Your task to perform on an android device: Find coffee shops on Maps Image 0: 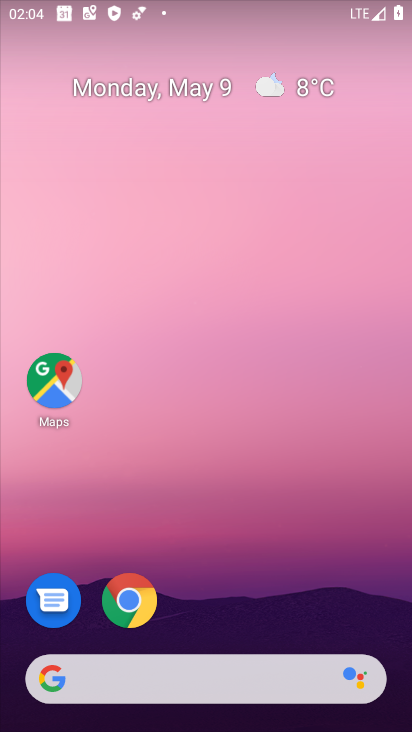
Step 0: drag from (238, 613) to (258, 197)
Your task to perform on an android device: Find coffee shops on Maps Image 1: 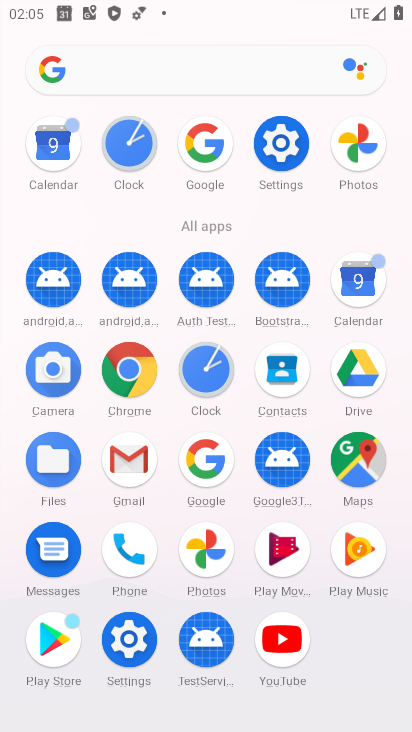
Step 1: click (345, 464)
Your task to perform on an android device: Find coffee shops on Maps Image 2: 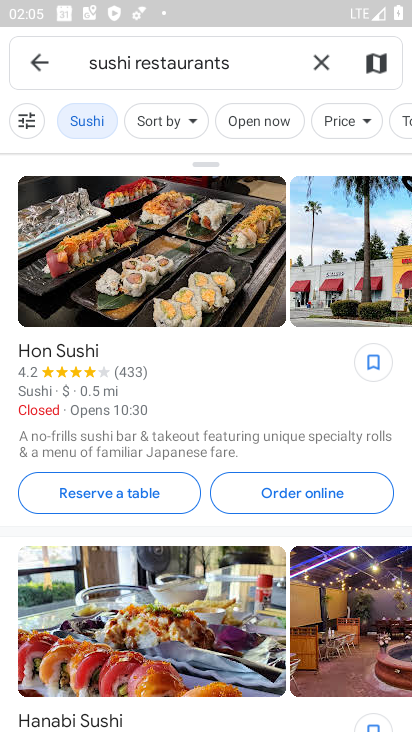
Step 2: click (316, 67)
Your task to perform on an android device: Find coffee shops on Maps Image 3: 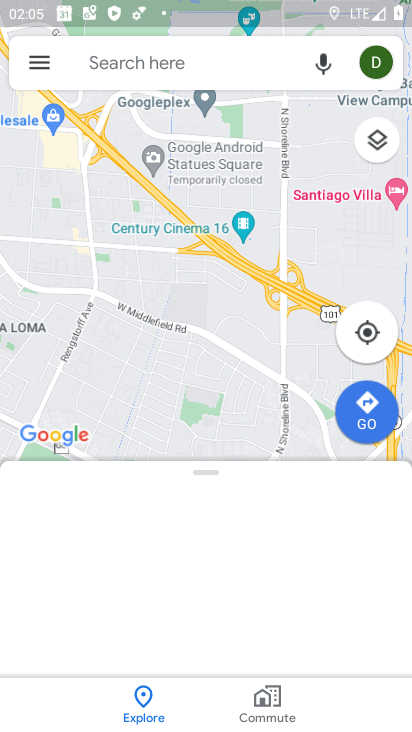
Step 3: click (186, 65)
Your task to perform on an android device: Find coffee shops on Maps Image 4: 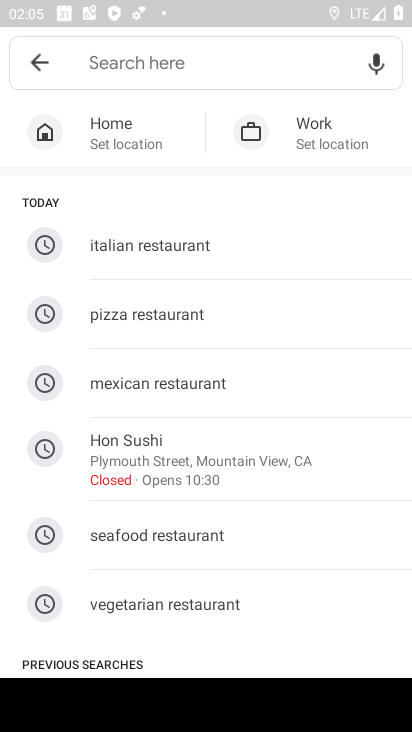
Step 4: drag from (154, 582) to (175, 185)
Your task to perform on an android device: Find coffee shops on Maps Image 5: 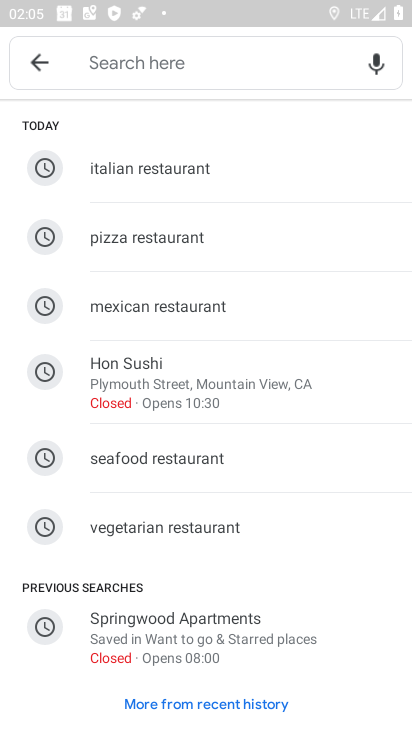
Step 5: drag from (174, 183) to (282, 714)
Your task to perform on an android device: Find coffee shops on Maps Image 6: 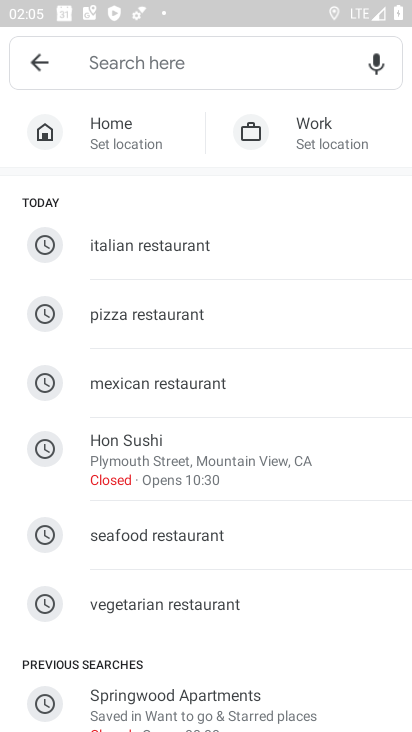
Step 6: type "coffee"
Your task to perform on an android device: Find coffee shops on Maps Image 7: 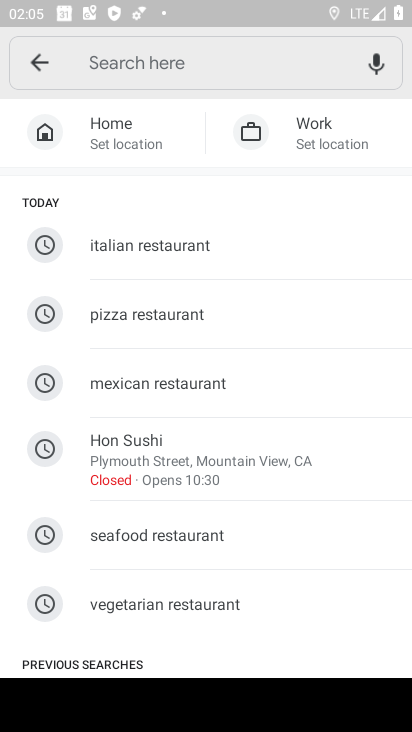
Step 7: click (117, 62)
Your task to perform on an android device: Find coffee shops on Maps Image 8: 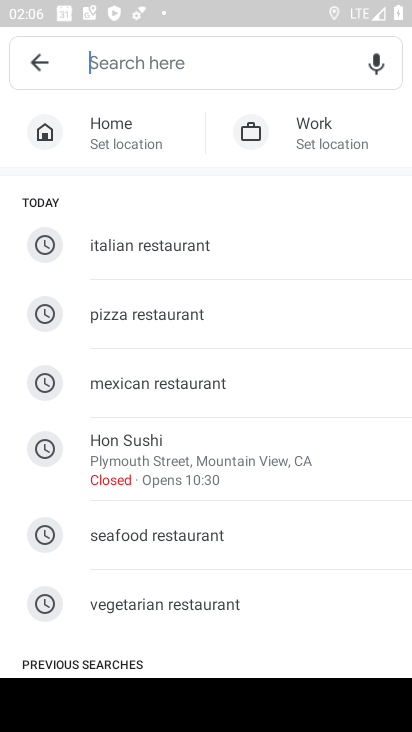
Step 8: type "coffee"
Your task to perform on an android device: Find coffee shops on Maps Image 9: 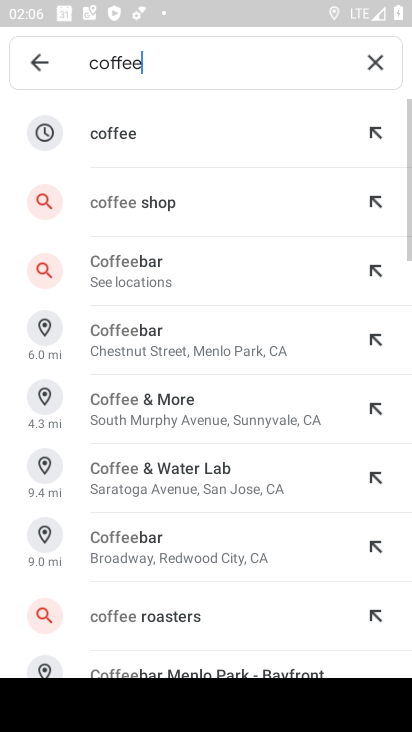
Step 9: click (153, 143)
Your task to perform on an android device: Find coffee shops on Maps Image 10: 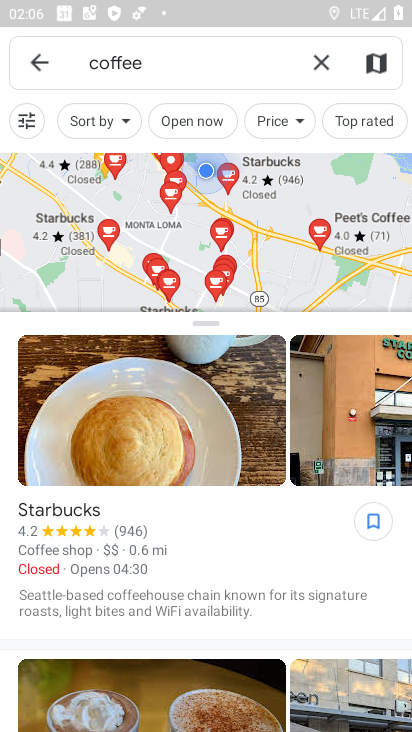
Step 10: task complete